Your task to perform on an android device: What is the recent news? Image 0: 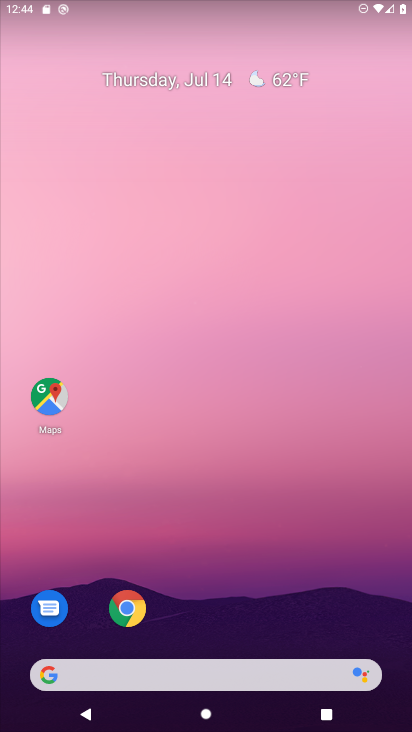
Step 0: drag from (2, 262) to (398, 253)
Your task to perform on an android device: What is the recent news? Image 1: 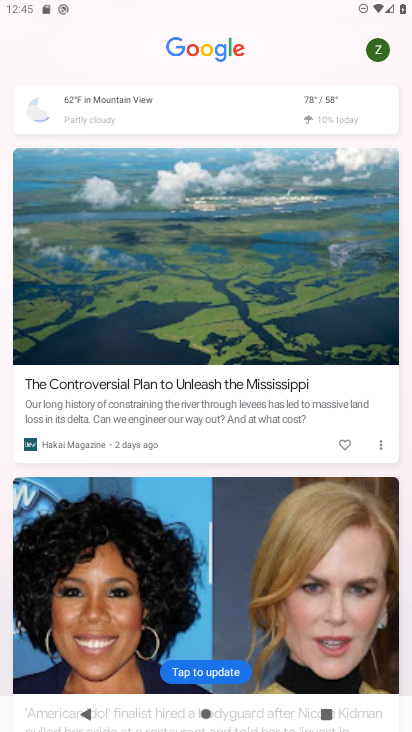
Step 1: task complete